Your task to perform on an android device: Check the settings for the Google Play Movies app Image 0: 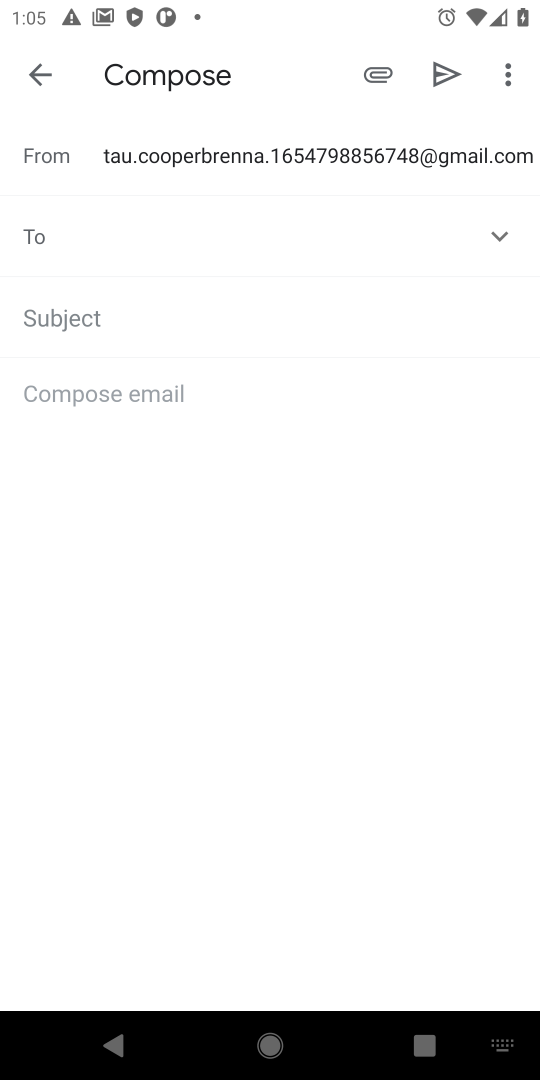
Step 0: press home button
Your task to perform on an android device: Check the settings for the Google Play Movies app Image 1: 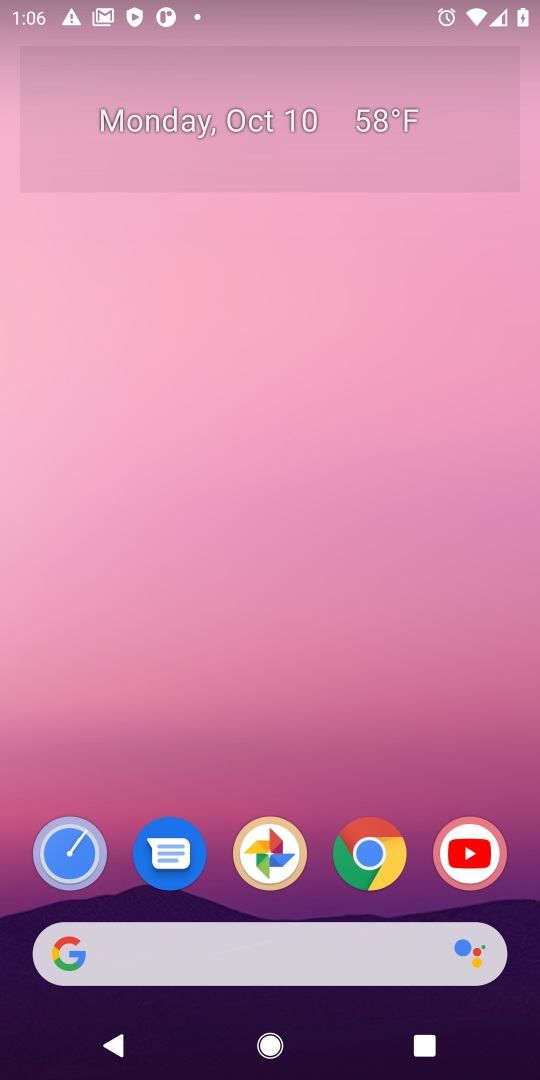
Step 1: drag from (305, 872) to (248, 193)
Your task to perform on an android device: Check the settings for the Google Play Movies app Image 2: 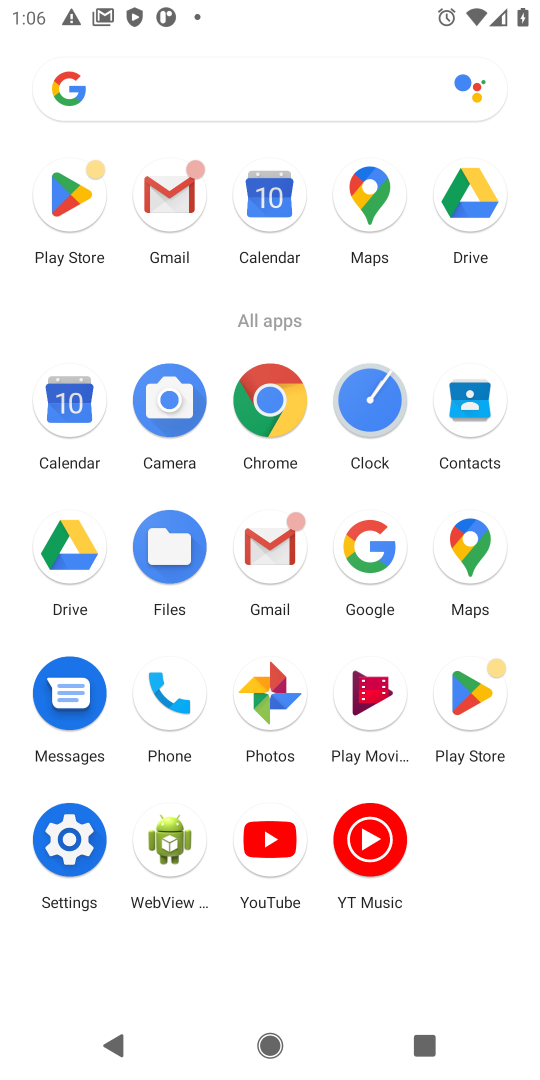
Step 2: click (356, 708)
Your task to perform on an android device: Check the settings for the Google Play Movies app Image 3: 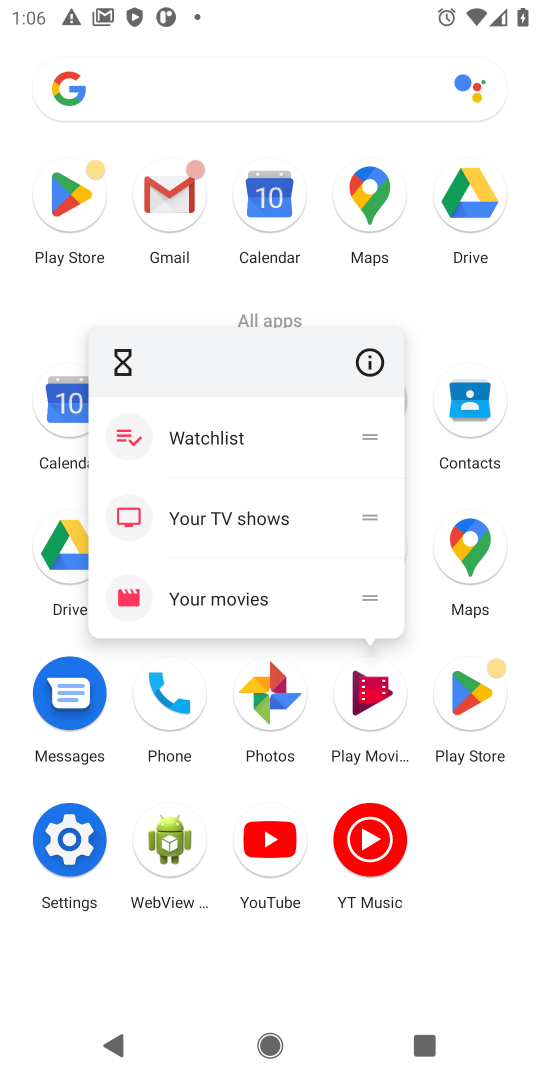
Step 3: click (383, 364)
Your task to perform on an android device: Check the settings for the Google Play Movies app Image 4: 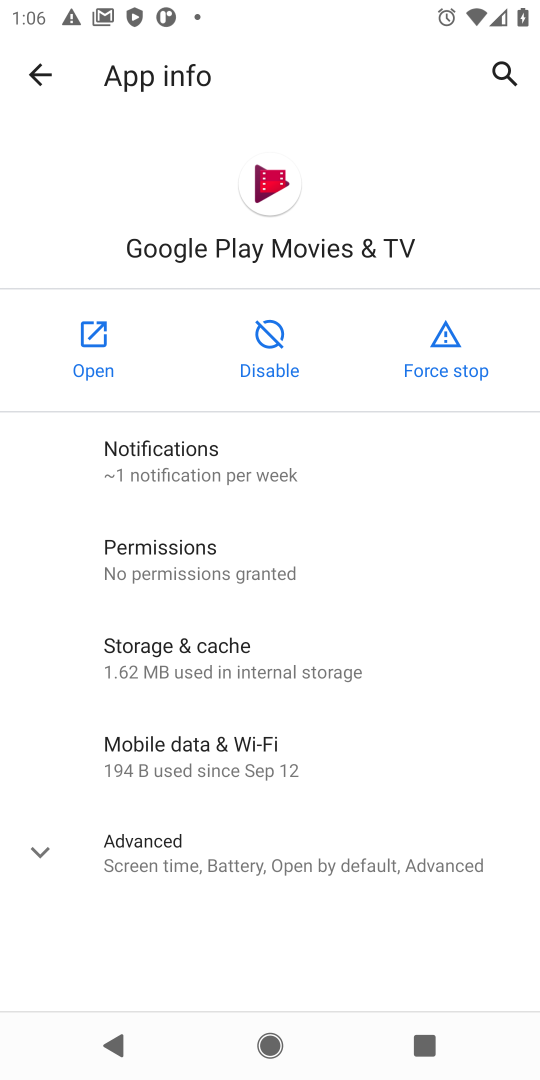
Step 4: click (333, 857)
Your task to perform on an android device: Check the settings for the Google Play Movies app Image 5: 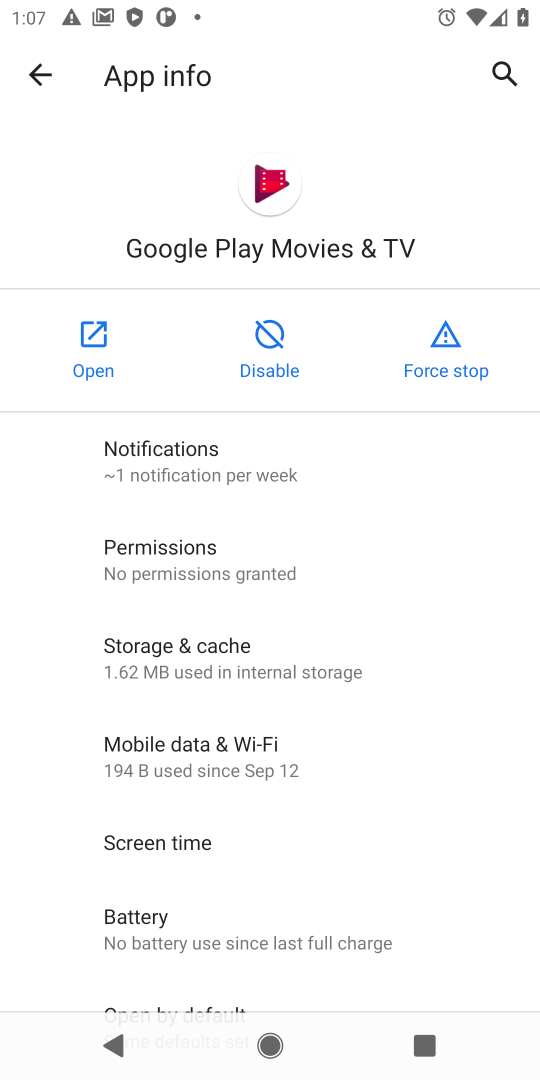
Step 5: task complete